Your task to perform on an android device: What's the weather going to be tomorrow? Image 0: 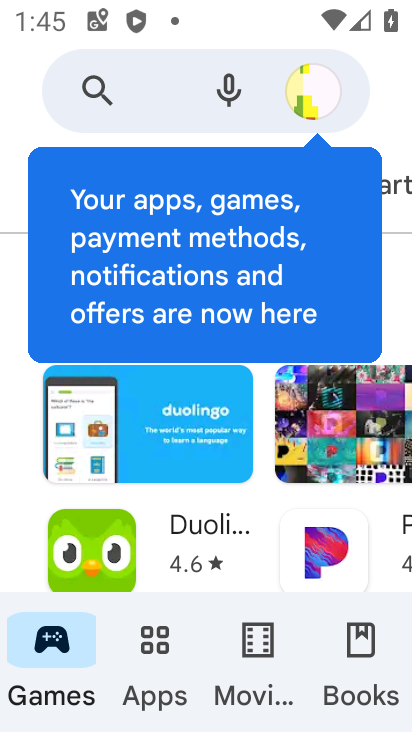
Step 0: press home button
Your task to perform on an android device: What's the weather going to be tomorrow? Image 1: 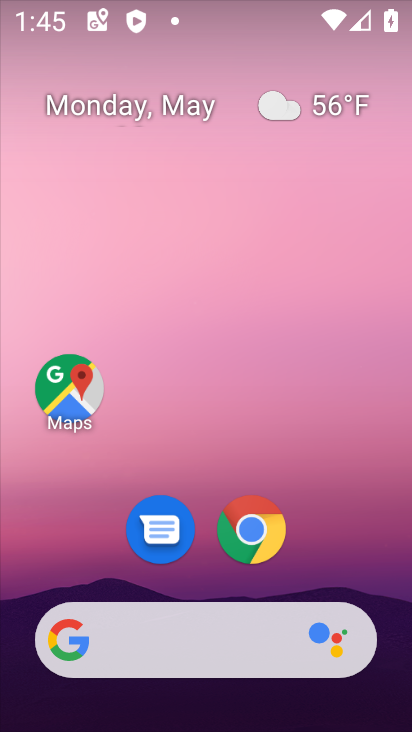
Step 1: click (227, 650)
Your task to perform on an android device: What's the weather going to be tomorrow? Image 2: 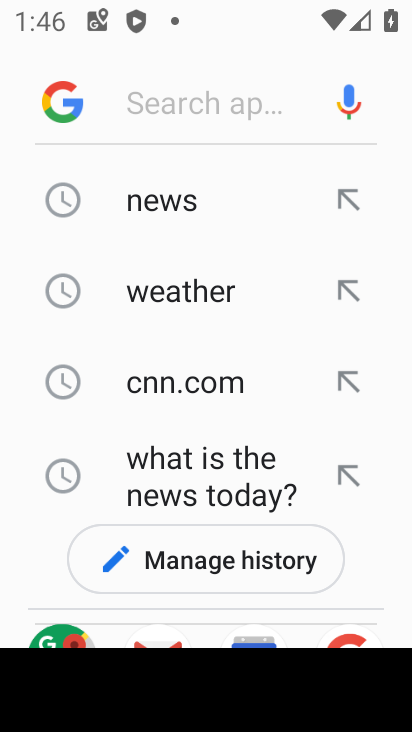
Step 2: type "what's the weather going to be tomorrrow"
Your task to perform on an android device: What's the weather going to be tomorrow? Image 3: 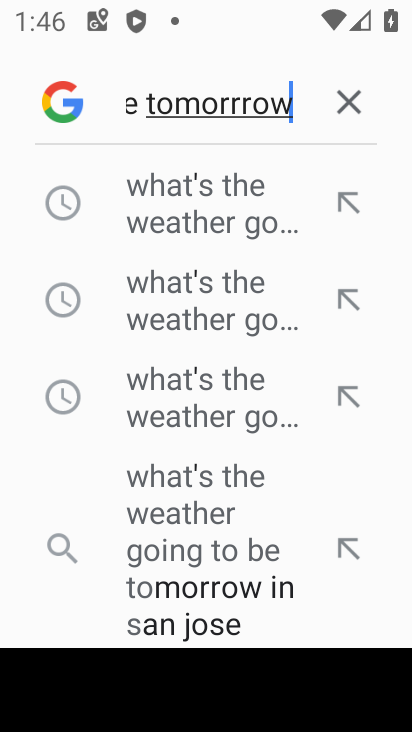
Step 3: click (187, 200)
Your task to perform on an android device: What's the weather going to be tomorrow? Image 4: 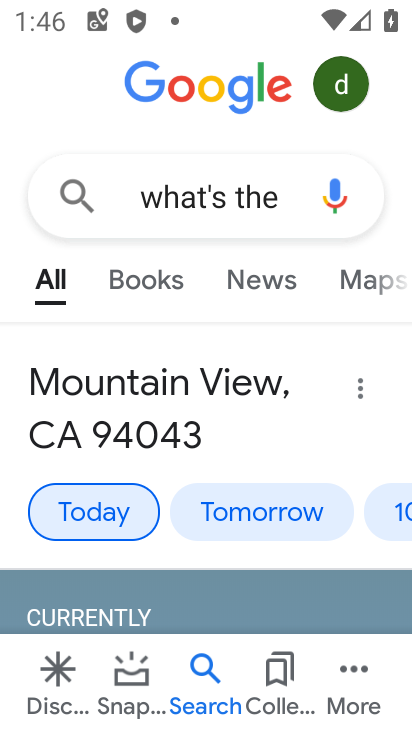
Step 4: drag from (173, 605) to (241, 160)
Your task to perform on an android device: What's the weather going to be tomorrow? Image 5: 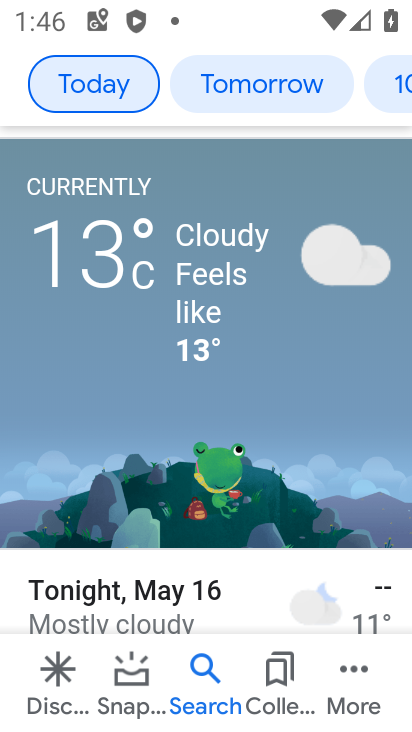
Step 5: click (235, 92)
Your task to perform on an android device: What's the weather going to be tomorrow? Image 6: 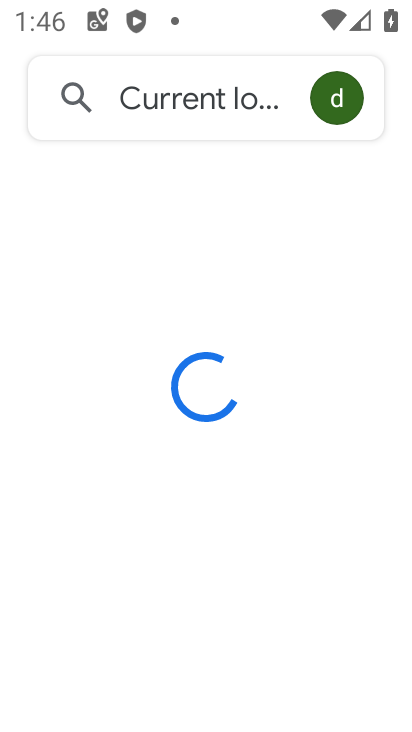
Step 6: click (235, 92)
Your task to perform on an android device: What's the weather going to be tomorrow? Image 7: 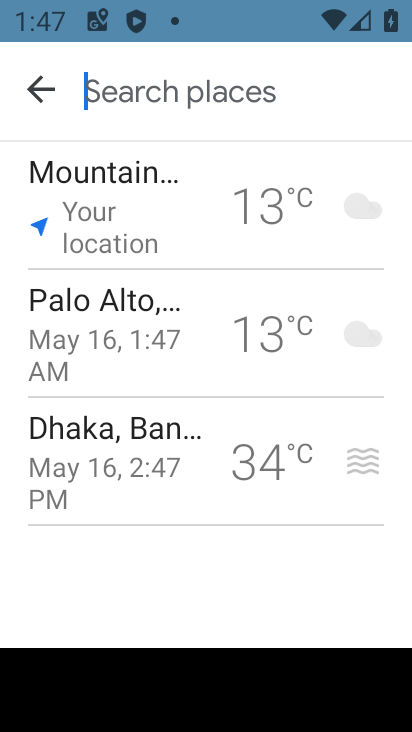
Step 7: click (37, 79)
Your task to perform on an android device: What's the weather going to be tomorrow? Image 8: 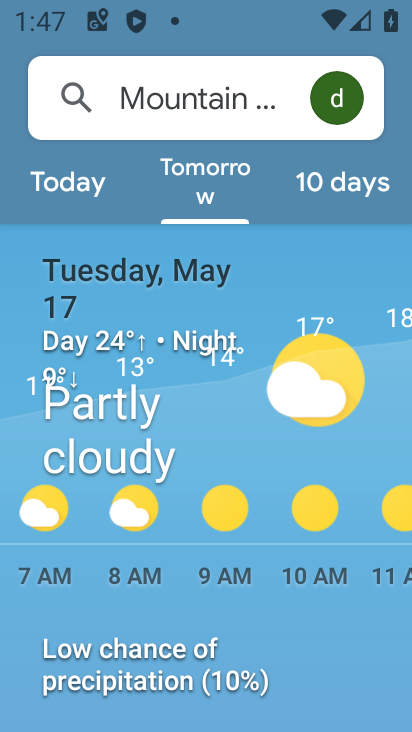
Step 8: task complete